Your task to perform on an android device: Show me the alarms in the clock app Image 0: 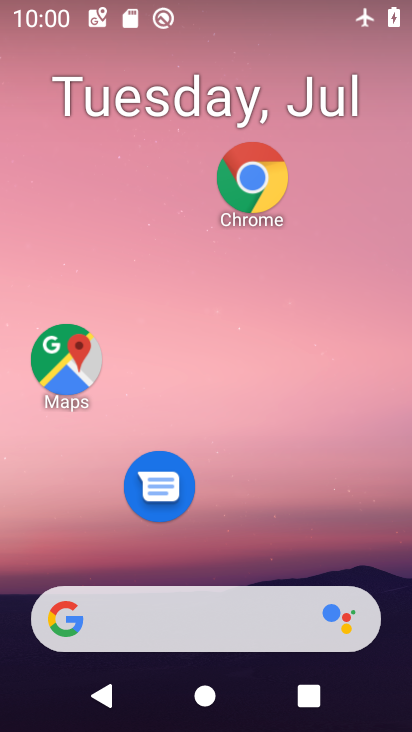
Step 0: drag from (227, 422) to (243, 611)
Your task to perform on an android device: Show me the alarms in the clock app Image 1: 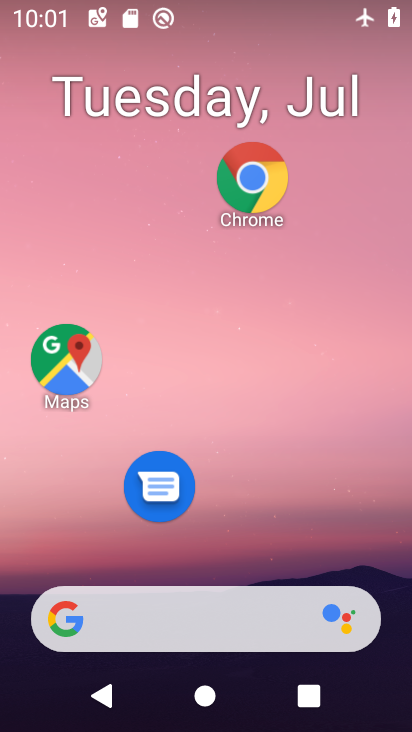
Step 1: drag from (210, 469) to (351, 4)
Your task to perform on an android device: Show me the alarms in the clock app Image 2: 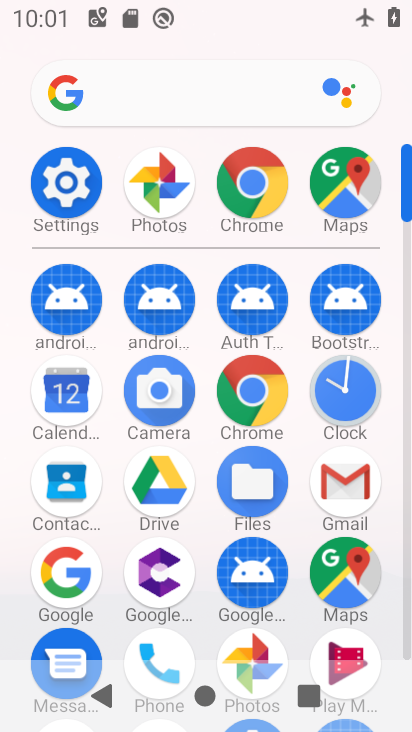
Step 2: click (365, 418)
Your task to perform on an android device: Show me the alarms in the clock app Image 3: 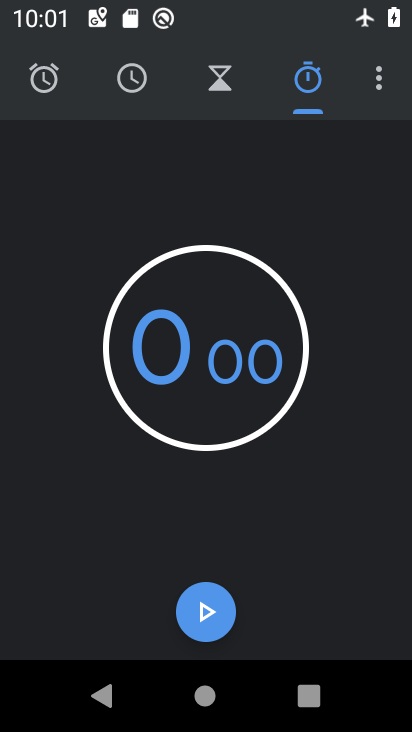
Step 3: click (51, 80)
Your task to perform on an android device: Show me the alarms in the clock app Image 4: 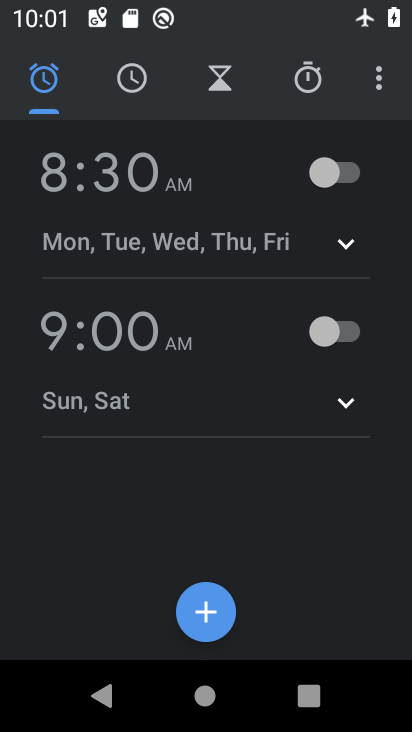
Step 4: task complete